Your task to perform on an android device: Go to display settings Image 0: 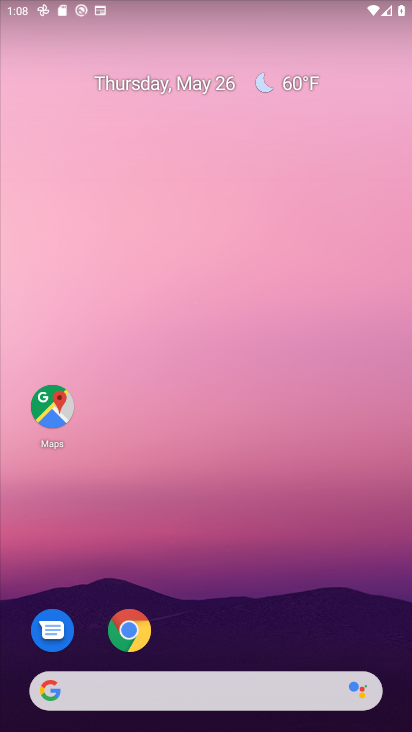
Step 0: drag from (299, 506) to (364, 75)
Your task to perform on an android device: Go to display settings Image 1: 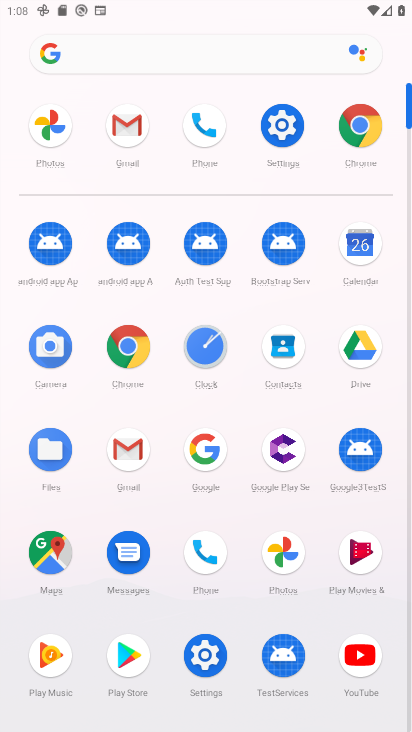
Step 1: click (277, 138)
Your task to perform on an android device: Go to display settings Image 2: 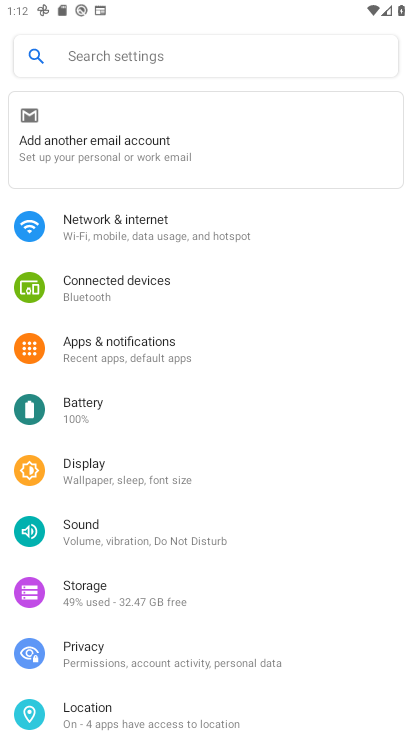
Step 2: click (109, 472)
Your task to perform on an android device: Go to display settings Image 3: 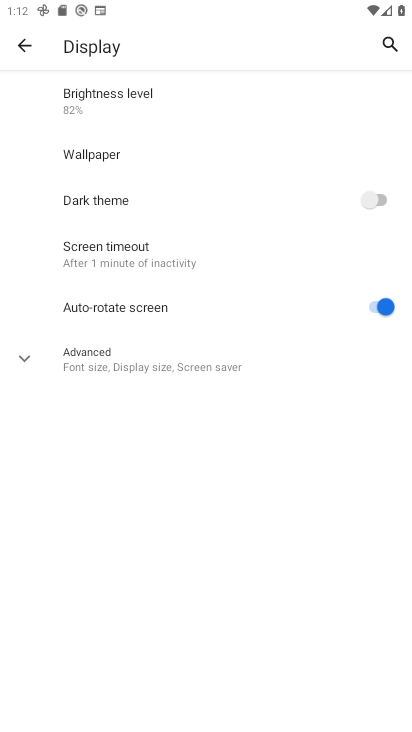
Step 3: task complete